Your task to perform on an android device: turn on sleep mode Image 0: 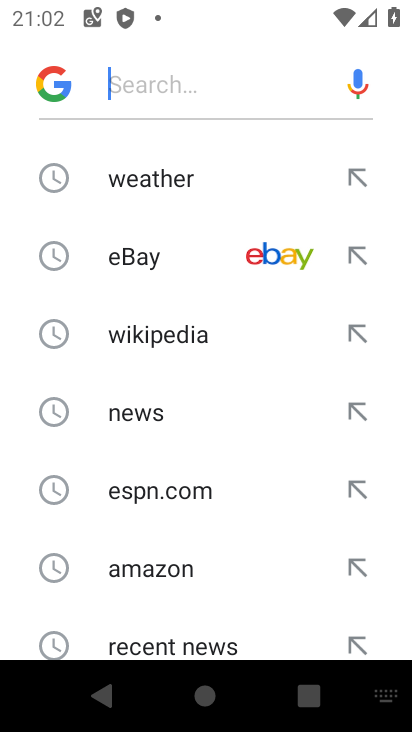
Step 0: press back button
Your task to perform on an android device: turn on sleep mode Image 1: 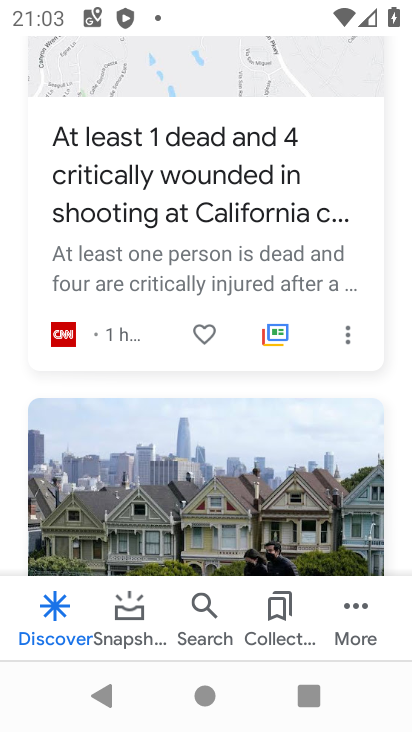
Step 1: press back button
Your task to perform on an android device: turn on sleep mode Image 2: 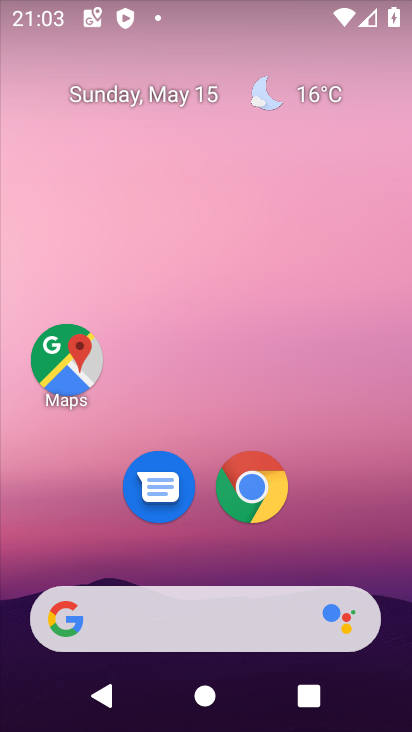
Step 2: drag from (387, 331) to (376, 243)
Your task to perform on an android device: turn on sleep mode Image 3: 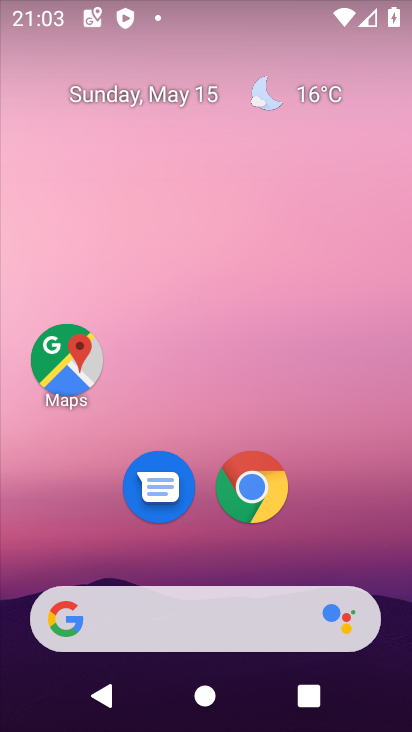
Step 3: drag from (384, 526) to (365, 297)
Your task to perform on an android device: turn on sleep mode Image 4: 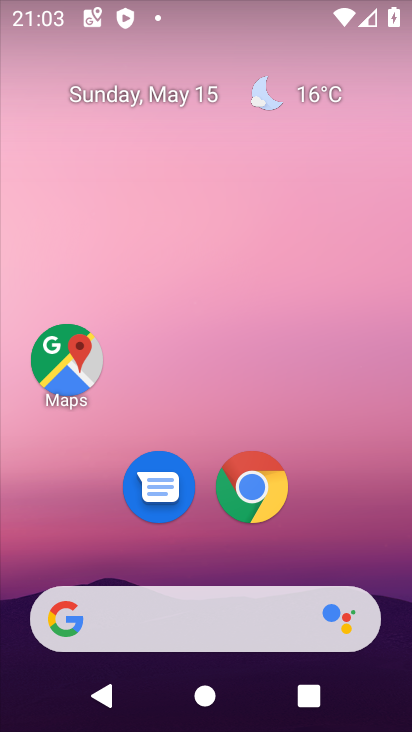
Step 4: drag from (404, 675) to (410, 169)
Your task to perform on an android device: turn on sleep mode Image 5: 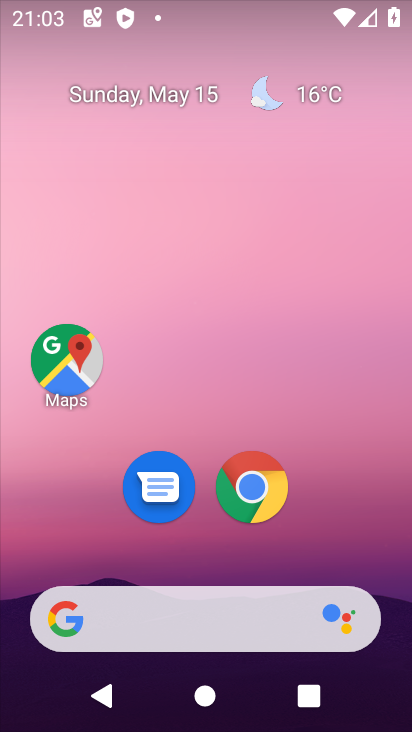
Step 5: drag from (361, 526) to (268, 174)
Your task to perform on an android device: turn on sleep mode Image 6: 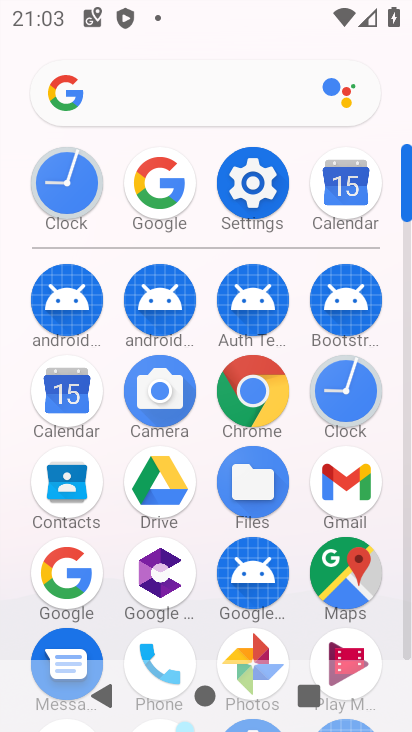
Step 6: click (251, 178)
Your task to perform on an android device: turn on sleep mode Image 7: 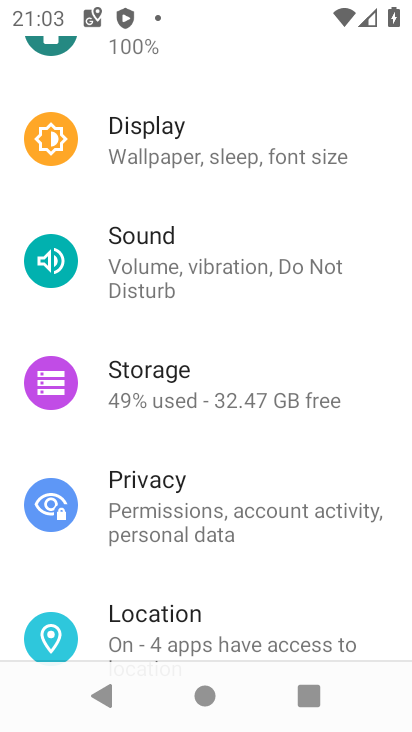
Step 7: click (225, 147)
Your task to perform on an android device: turn on sleep mode Image 8: 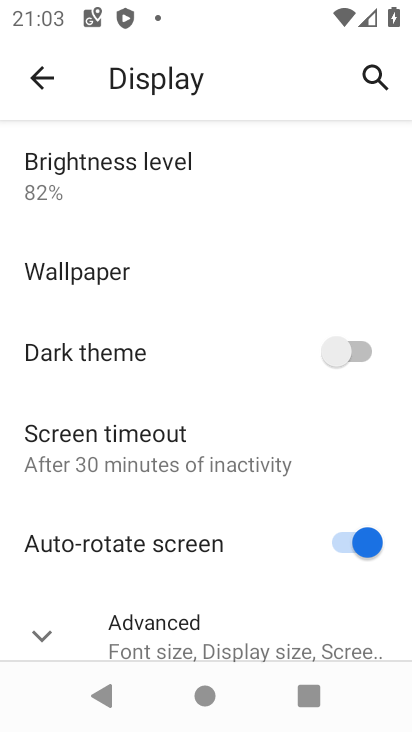
Step 8: click (110, 439)
Your task to perform on an android device: turn on sleep mode Image 9: 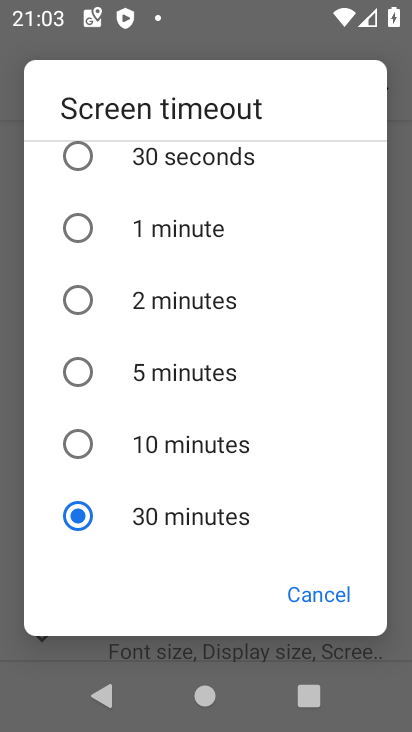
Step 9: task complete